Your task to perform on an android device: change the upload size in google photos Image 0: 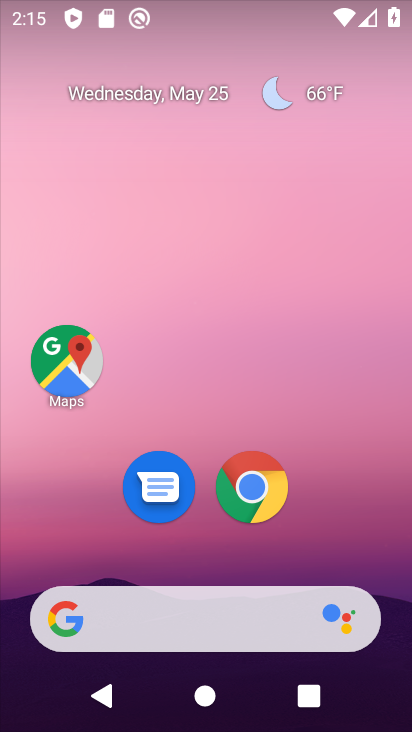
Step 0: drag from (234, 555) to (216, 163)
Your task to perform on an android device: change the upload size in google photos Image 1: 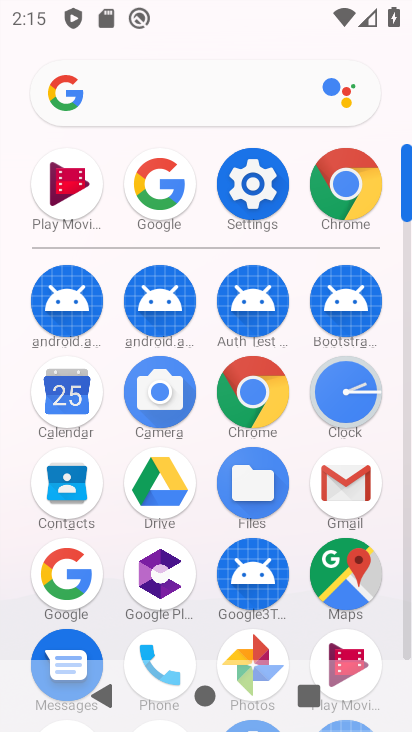
Step 1: click (240, 660)
Your task to perform on an android device: change the upload size in google photos Image 2: 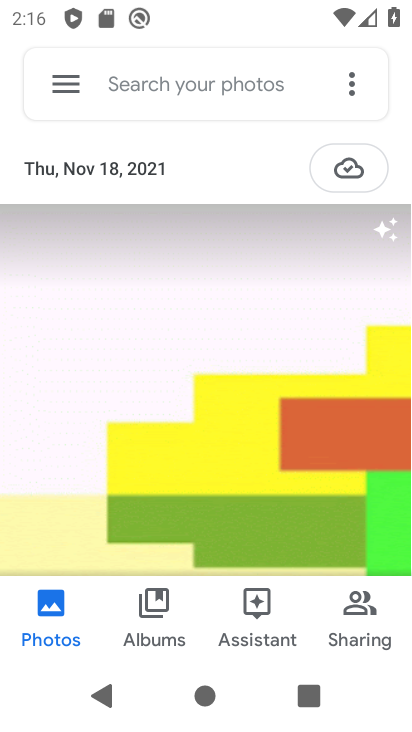
Step 2: click (44, 94)
Your task to perform on an android device: change the upload size in google photos Image 3: 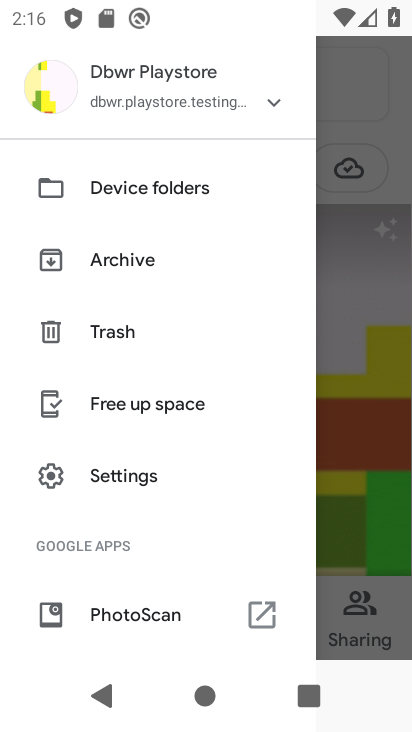
Step 3: click (112, 481)
Your task to perform on an android device: change the upload size in google photos Image 4: 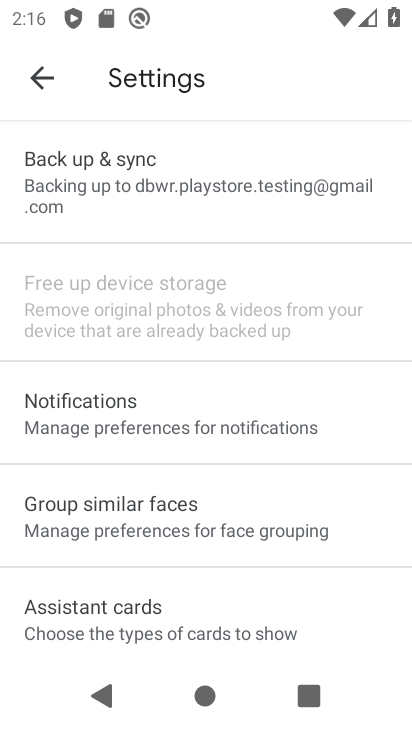
Step 4: click (71, 196)
Your task to perform on an android device: change the upload size in google photos Image 5: 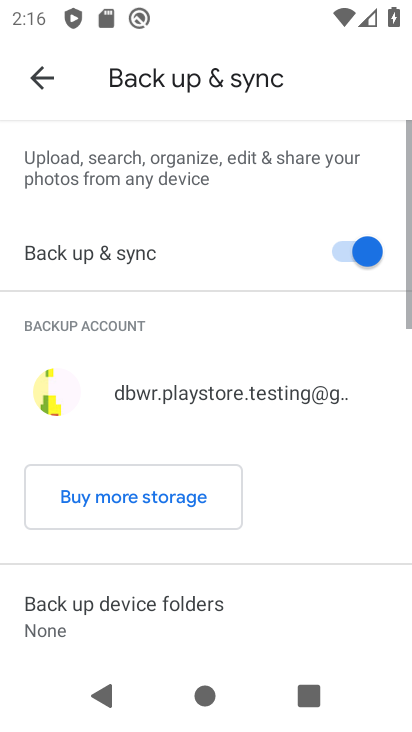
Step 5: drag from (143, 597) to (220, 371)
Your task to perform on an android device: change the upload size in google photos Image 6: 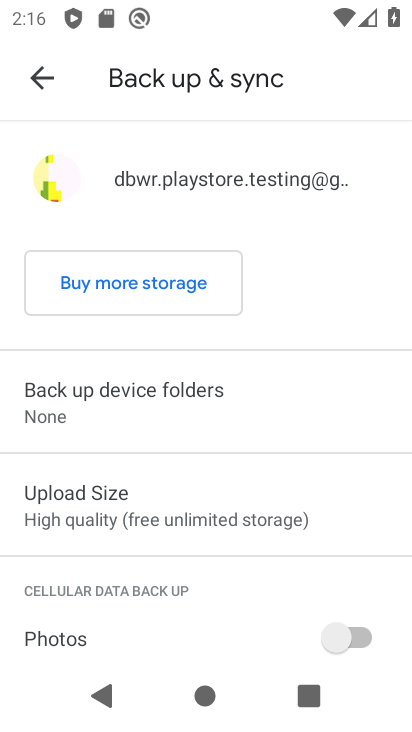
Step 6: click (107, 518)
Your task to perform on an android device: change the upload size in google photos Image 7: 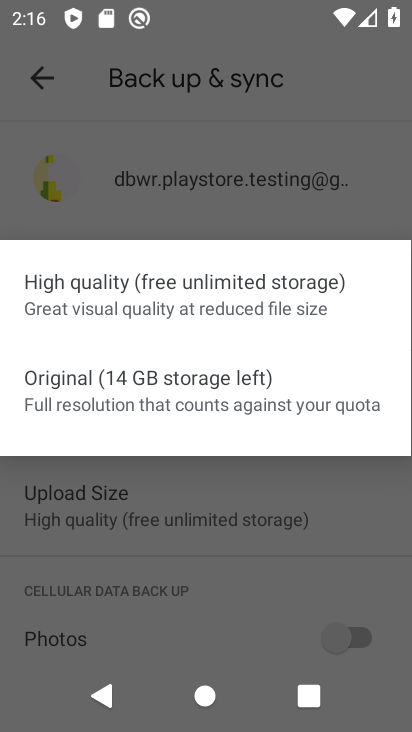
Step 7: click (121, 393)
Your task to perform on an android device: change the upload size in google photos Image 8: 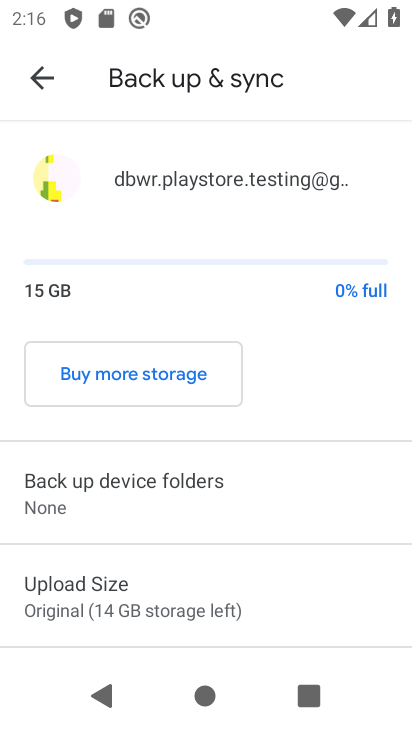
Step 8: task complete